Your task to perform on an android device: open app "LinkedIn" Image 0: 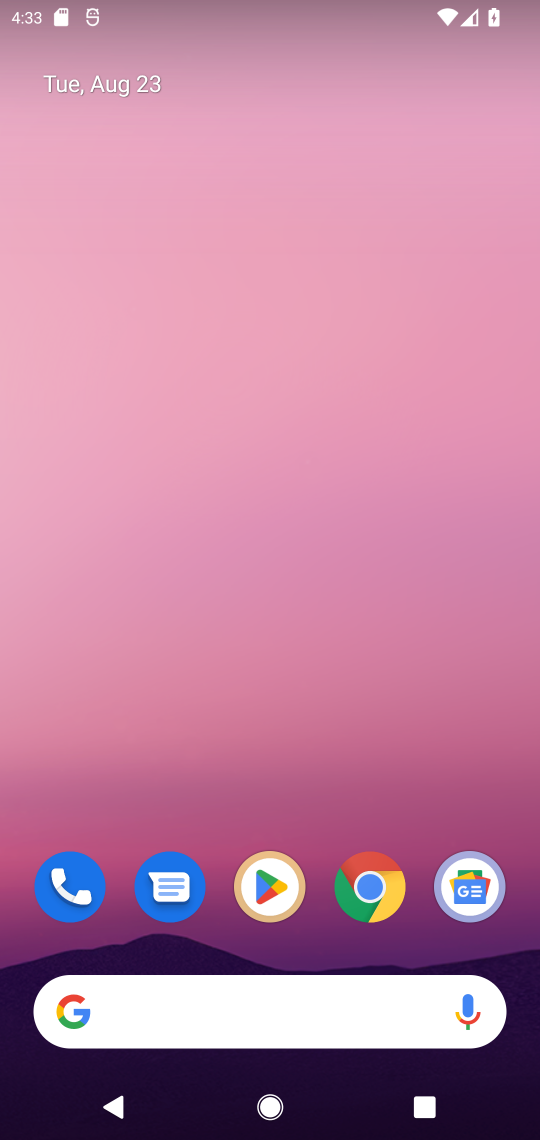
Step 0: click (266, 903)
Your task to perform on an android device: open app "LinkedIn" Image 1: 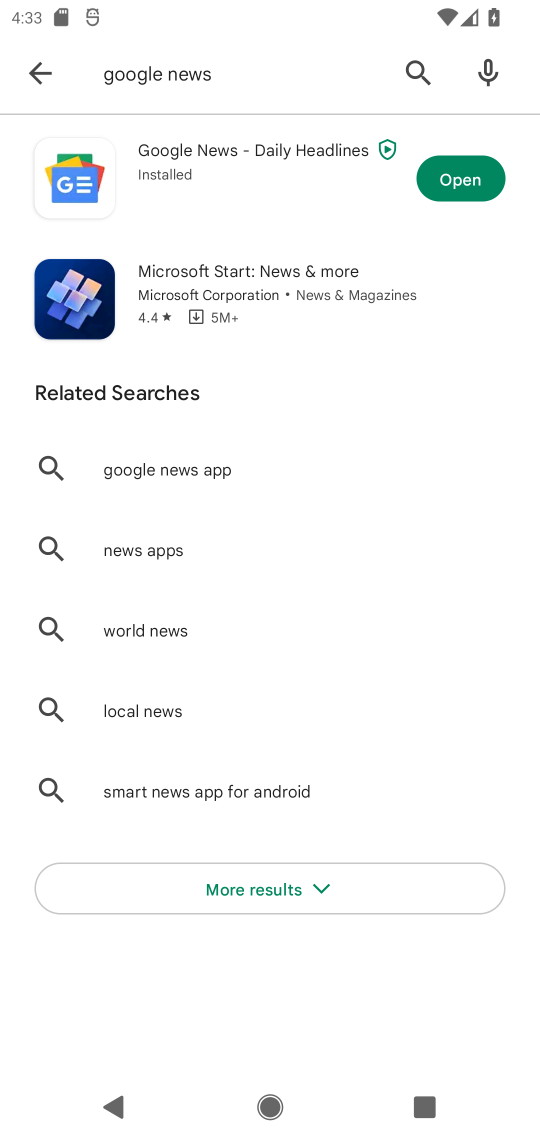
Step 1: click (40, 73)
Your task to perform on an android device: open app "LinkedIn" Image 2: 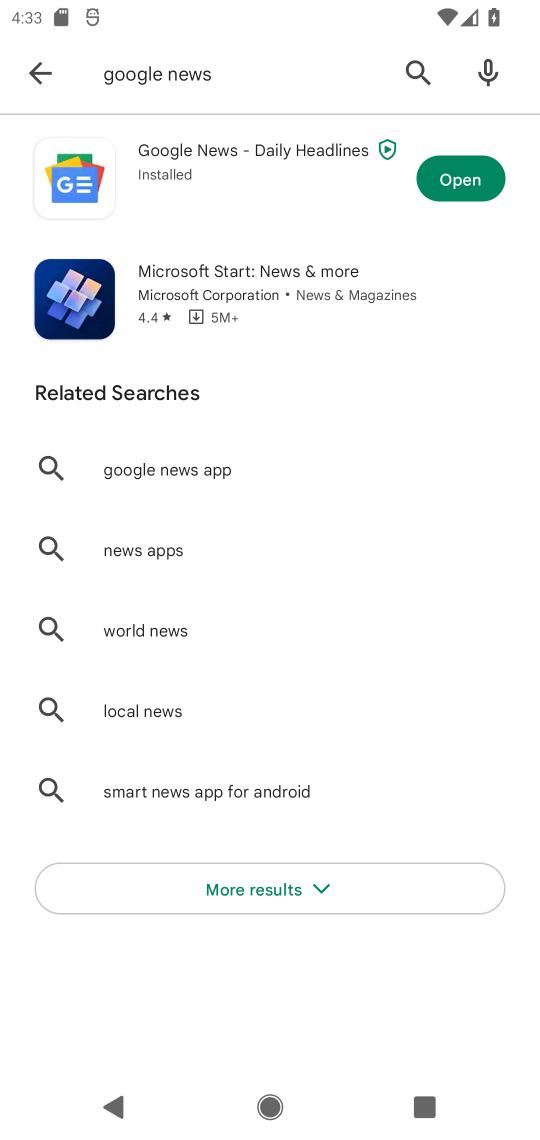
Step 2: click (41, 69)
Your task to perform on an android device: open app "LinkedIn" Image 3: 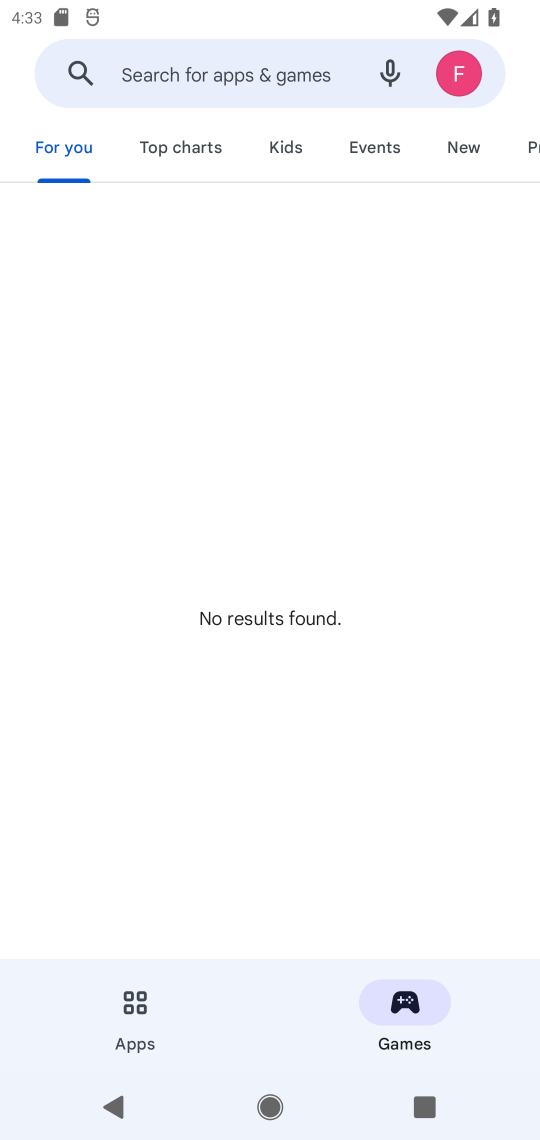
Step 3: click (182, 69)
Your task to perform on an android device: open app "LinkedIn" Image 4: 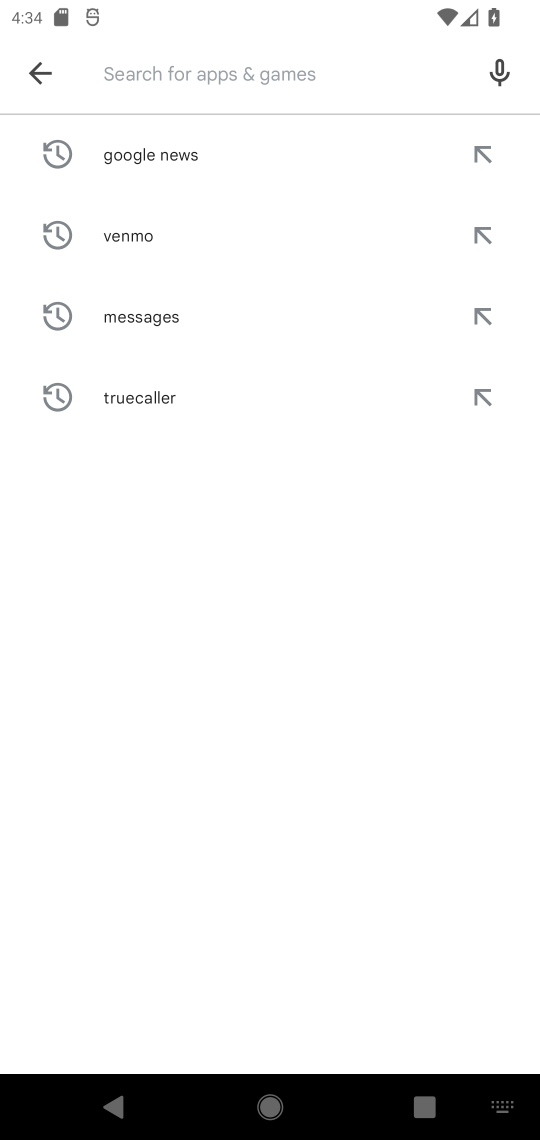
Step 4: type "LinkedIn"
Your task to perform on an android device: open app "LinkedIn" Image 5: 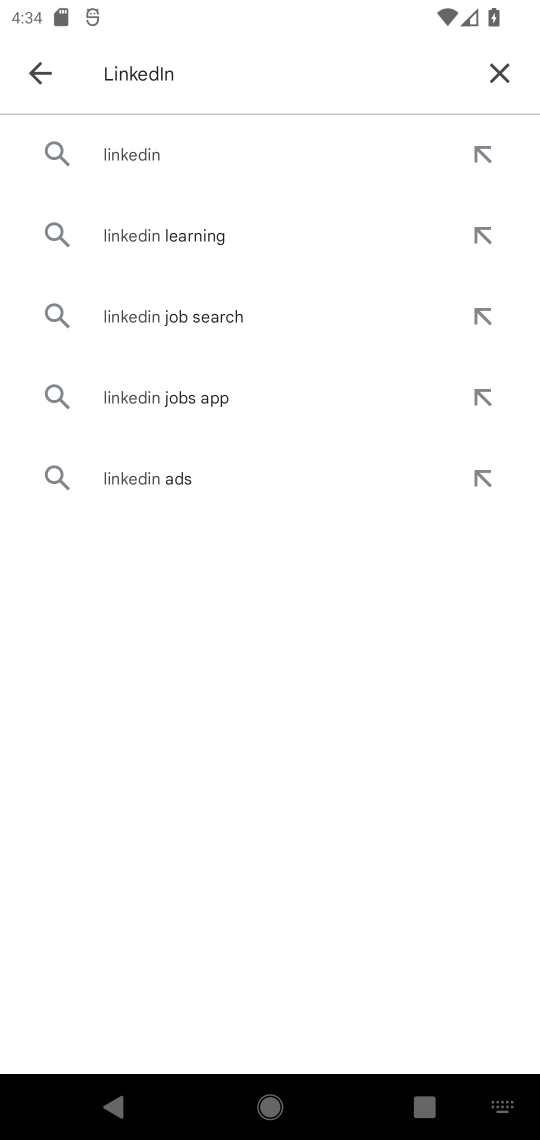
Step 5: click (130, 160)
Your task to perform on an android device: open app "LinkedIn" Image 6: 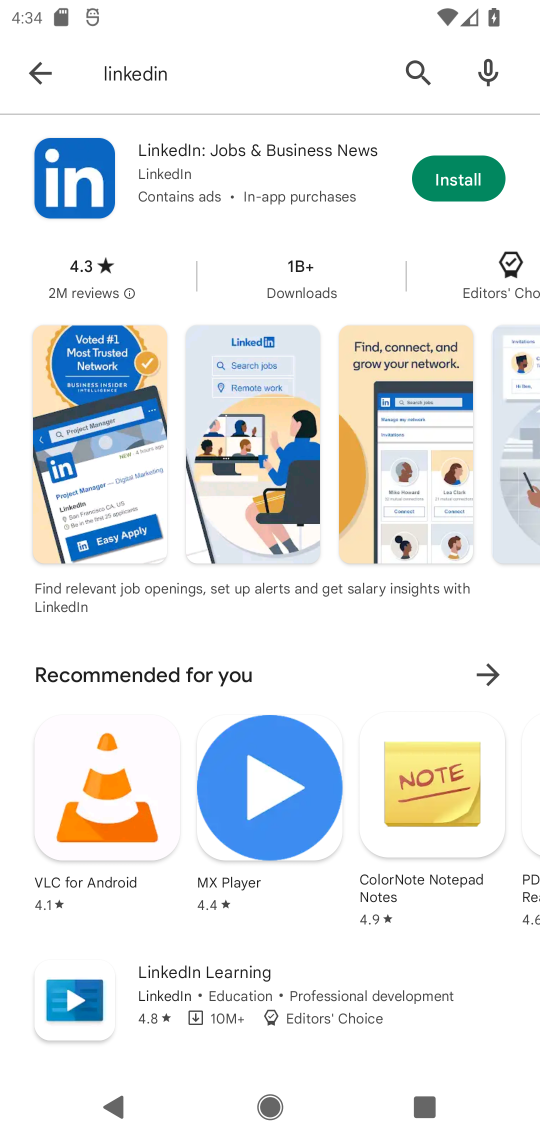
Step 6: click (444, 186)
Your task to perform on an android device: open app "LinkedIn" Image 7: 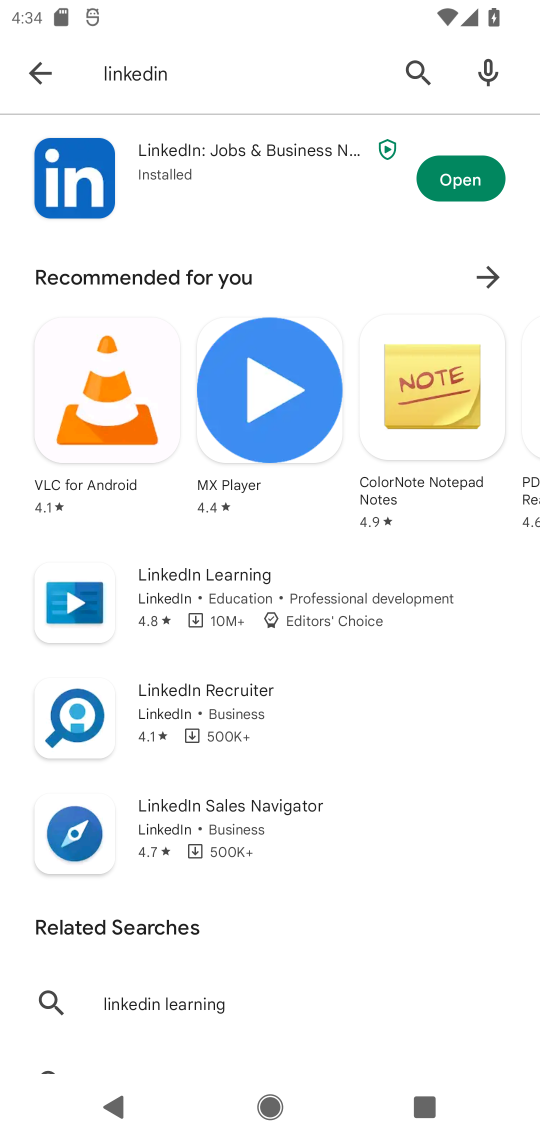
Step 7: click (446, 173)
Your task to perform on an android device: open app "LinkedIn" Image 8: 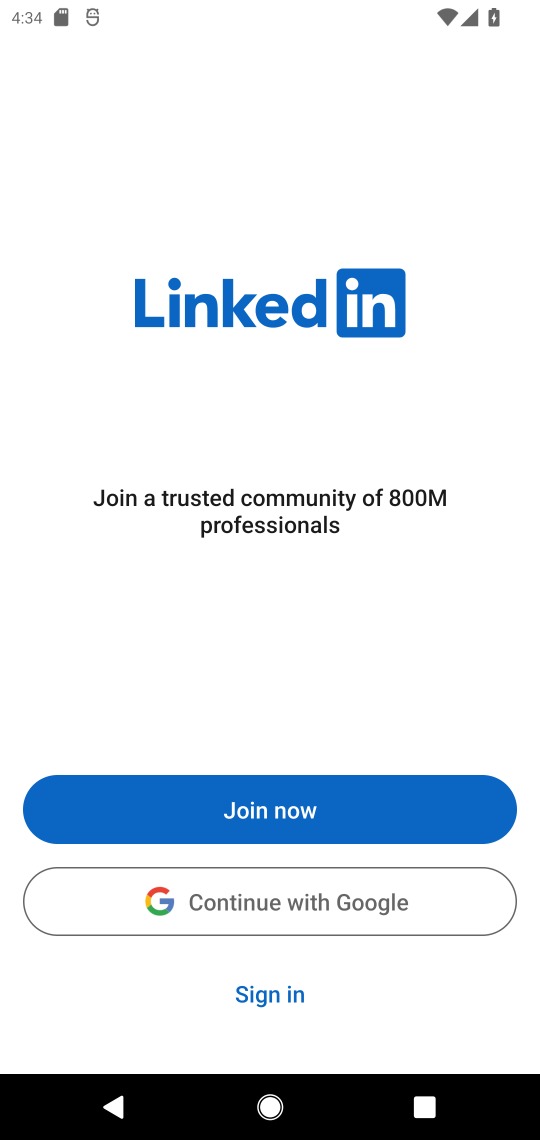
Step 8: task complete